Your task to perform on an android device: Open eBay Image 0: 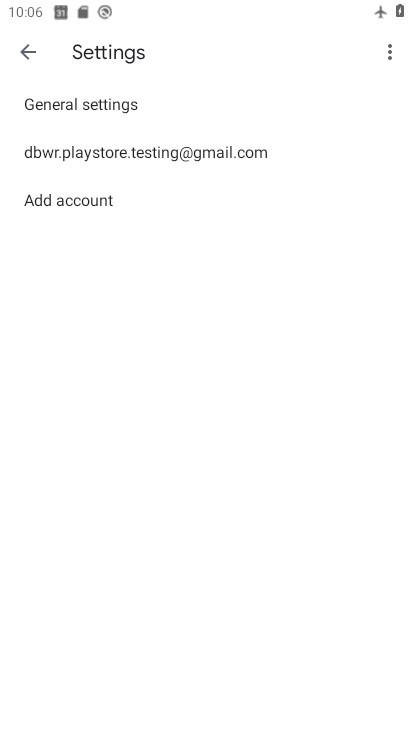
Step 0: press home button
Your task to perform on an android device: Open eBay Image 1: 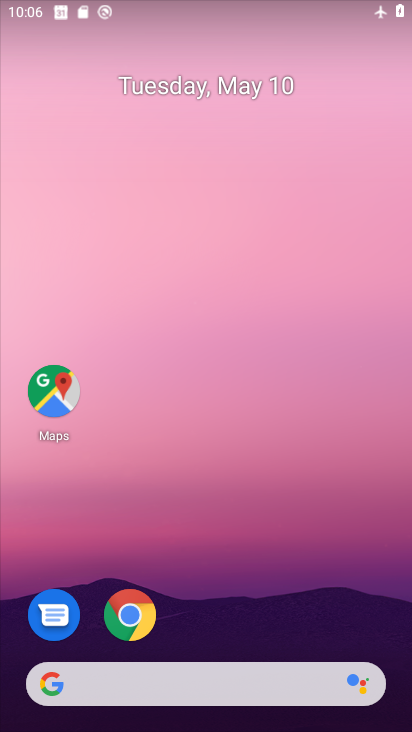
Step 1: click (237, 678)
Your task to perform on an android device: Open eBay Image 2: 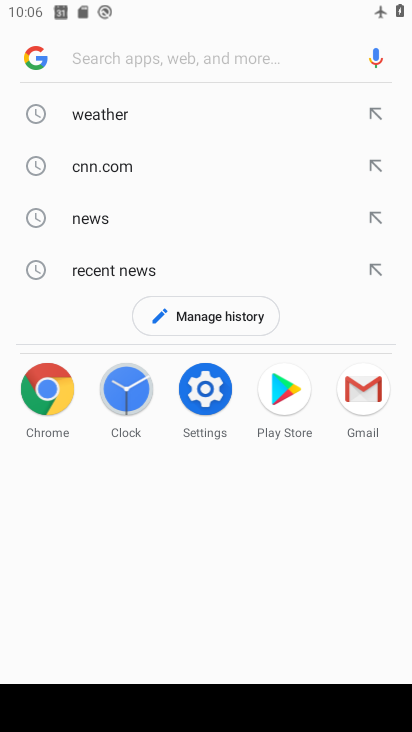
Step 2: type "ebay"
Your task to perform on an android device: Open eBay Image 3: 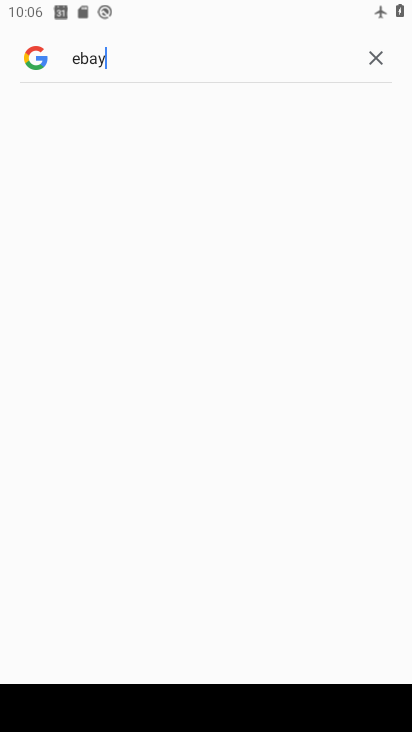
Step 3: task complete